Your task to perform on an android device: Open the web browser Image 0: 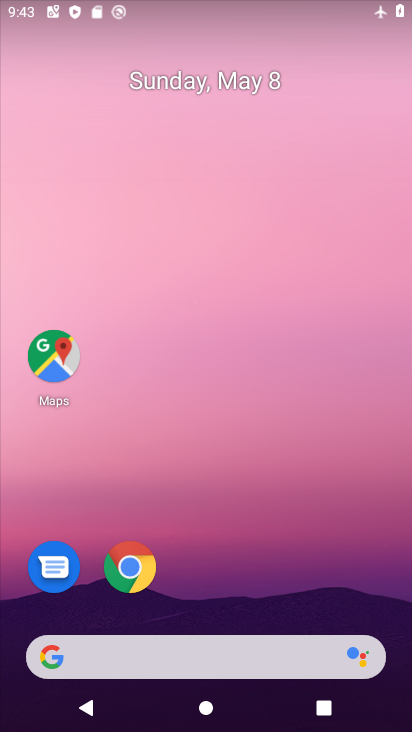
Step 0: click (139, 563)
Your task to perform on an android device: Open the web browser Image 1: 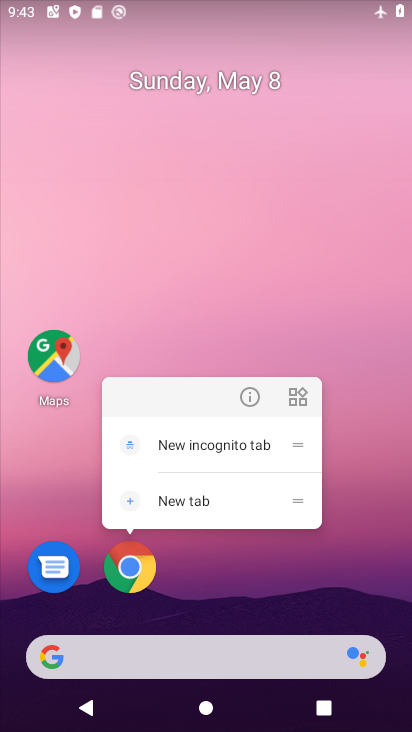
Step 1: click (127, 575)
Your task to perform on an android device: Open the web browser Image 2: 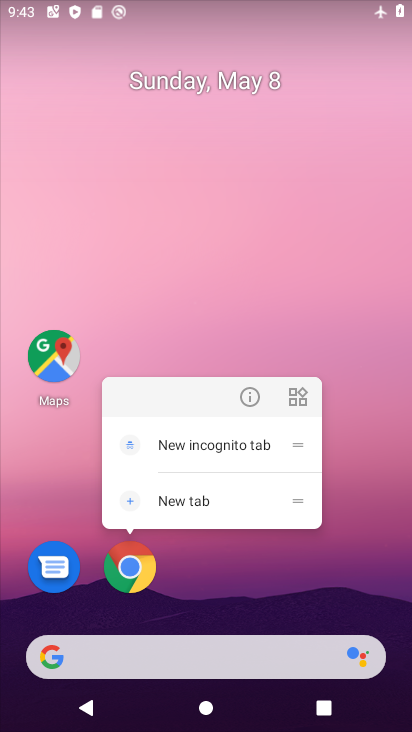
Step 2: click (127, 569)
Your task to perform on an android device: Open the web browser Image 3: 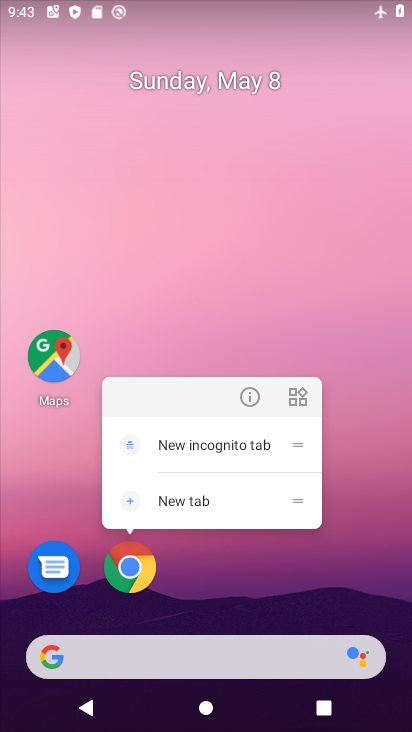
Step 3: click (128, 564)
Your task to perform on an android device: Open the web browser Image 4: 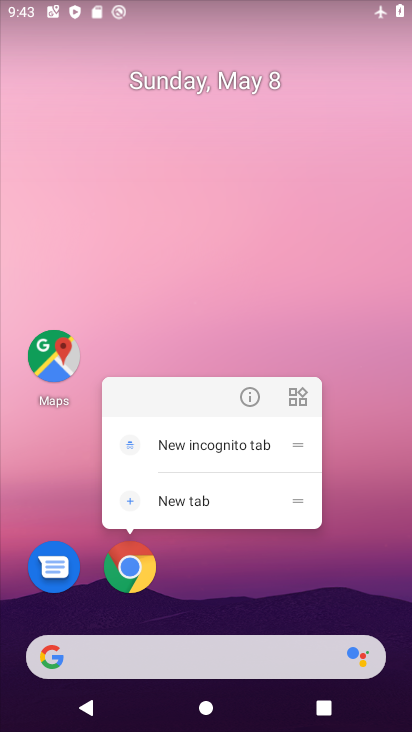
Step 4: click (128, 564)
Your task to perform on an android device: Open the web browser Image 5: 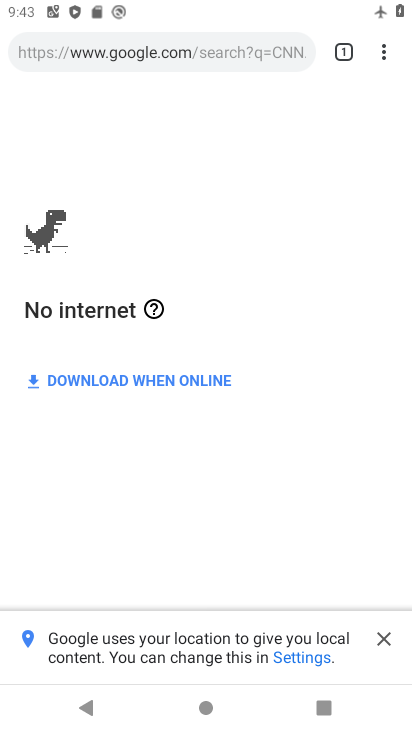
Step 5: task complete